Your task to perform on an android device: toggle javascript in the chrome app Image 0: 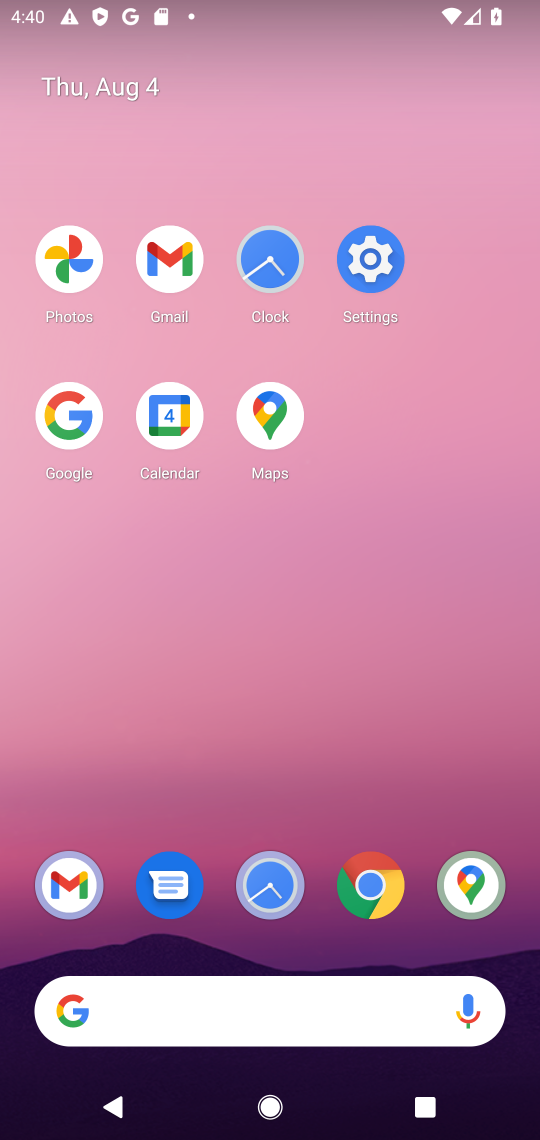
Step 0: click (381, 886)
Your task to perform on an android device: toggle javascript in the chrome app Image 1: 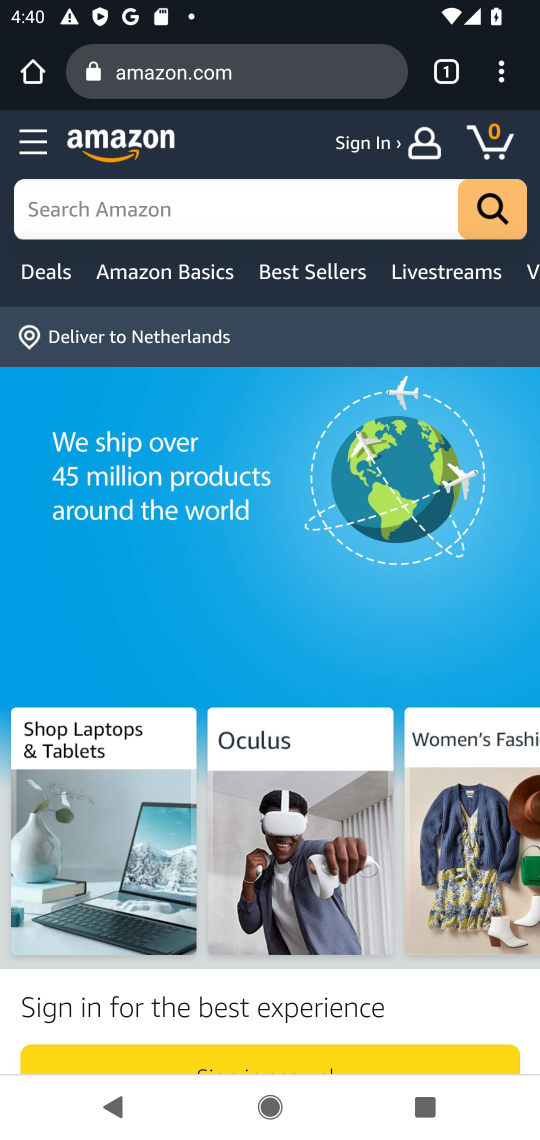
Step 1: click (502, 77)
Your task to perform on an android device: toggle javascript in the chrome app Image 2: 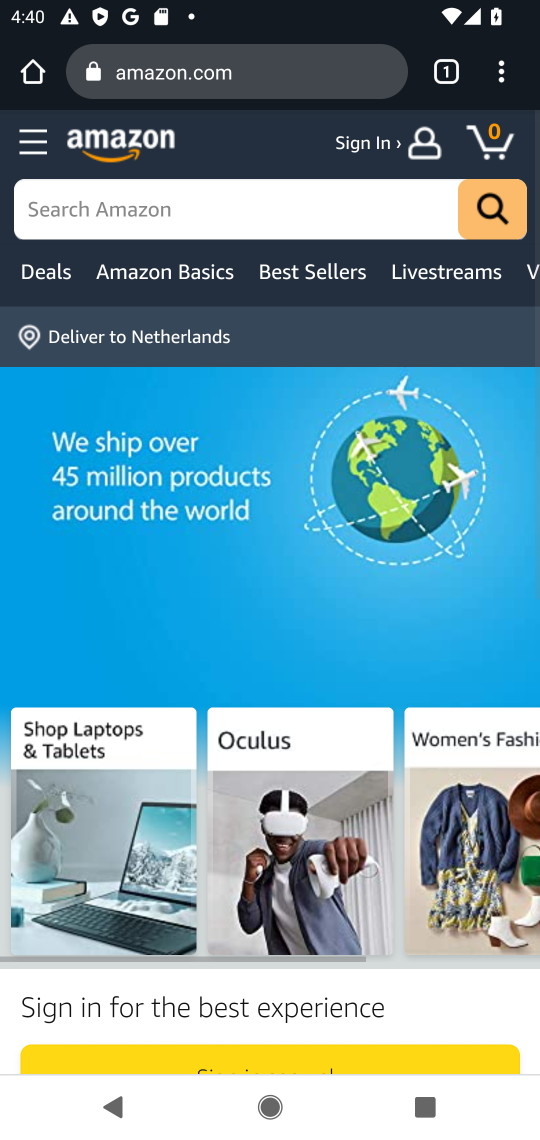
Step 2: click (502, 76)
Your task to perform on an android device: toggle javascript in the chrome app Image 3: 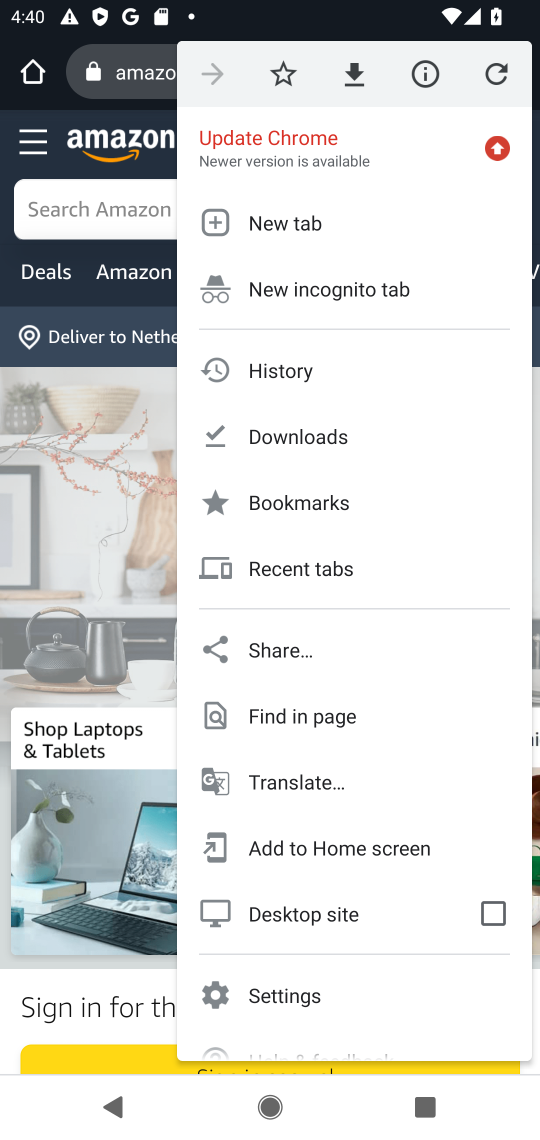
Step 3: click (297, 988)
Your task to perform on an android device: toggle javascript in the chrome app Image 4: 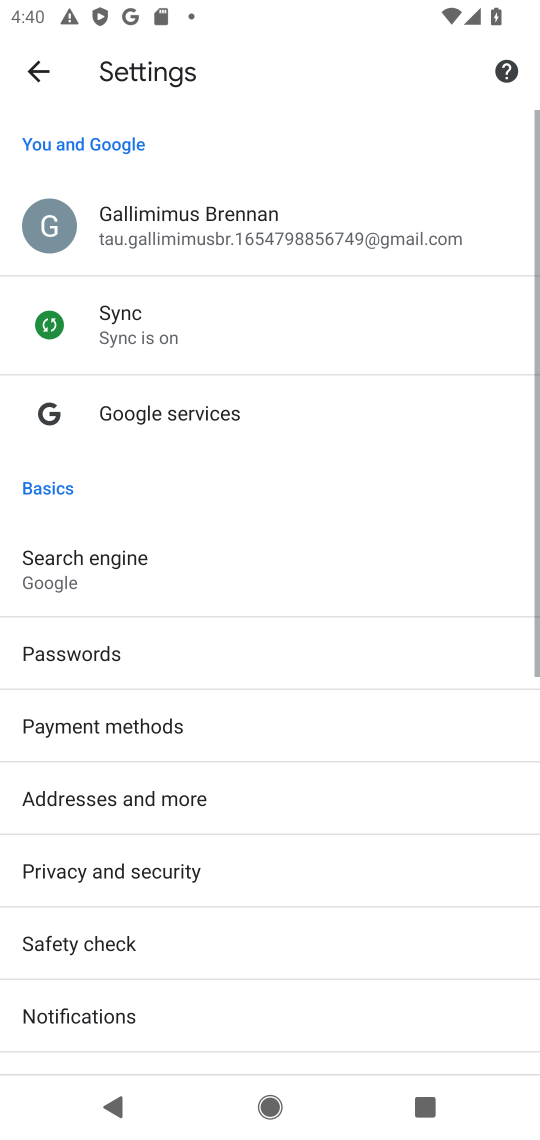
Step 4: drag from (391, 974) to (319, 281)
Your task to perform on an android device: toggle javascript in the chrome app Image 5: 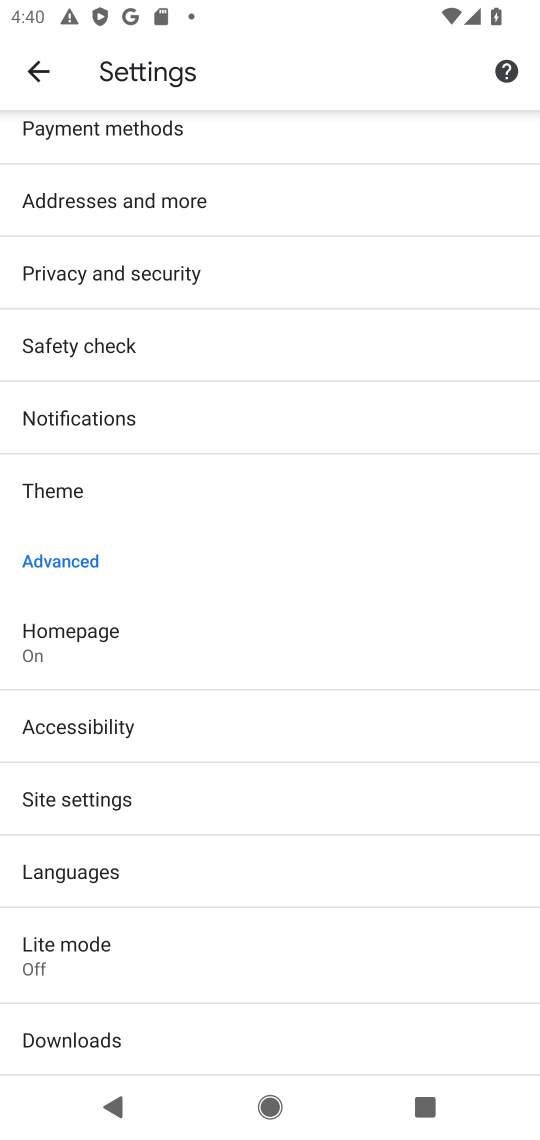
Step 5: click (140, 814)
Your task to perform on an android device: toggle javascript in the chrome app Image 6: 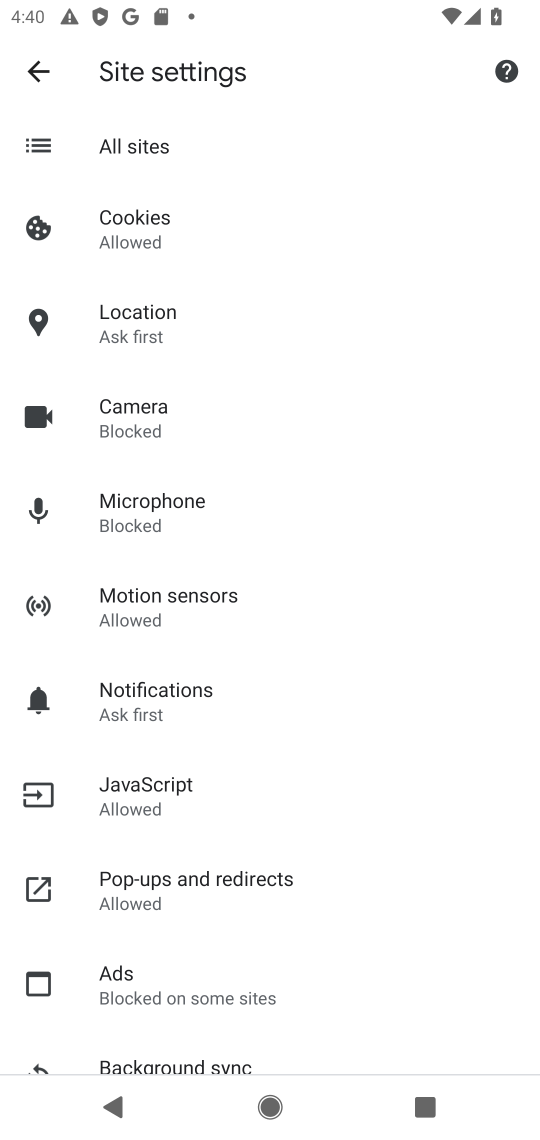
Step 6: click (142, 814)
Your task to perform on an android device: toggle javascript in the chrome app Image 7: 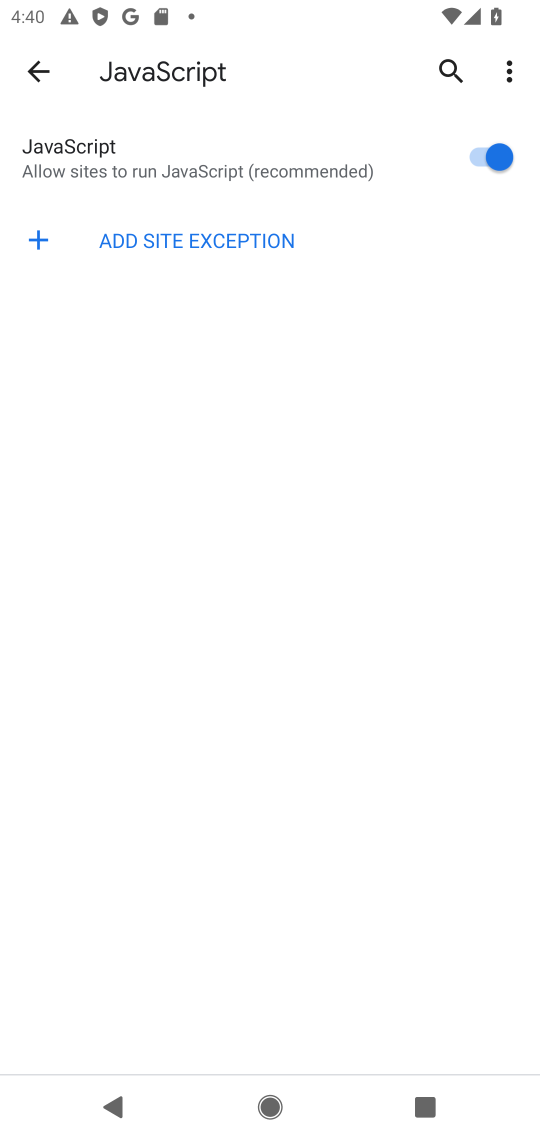
Step 7: task complete